Your task to perform on an android device: Open Chrome and go to settings Image 0: 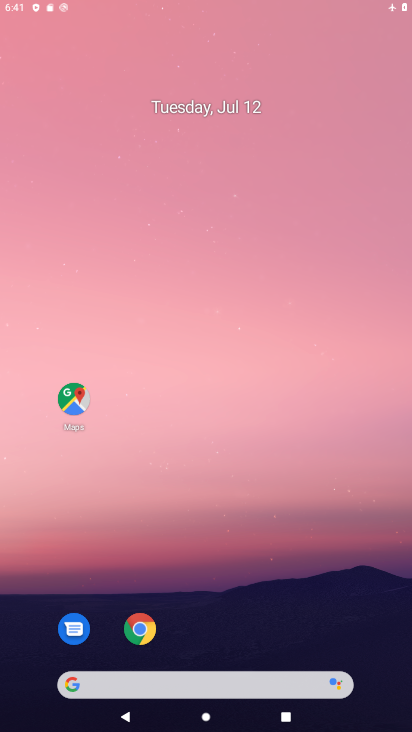
Step 0: click (214, 572)
Your task to perform on an android device: Open Chrome and go to settings Image 1: 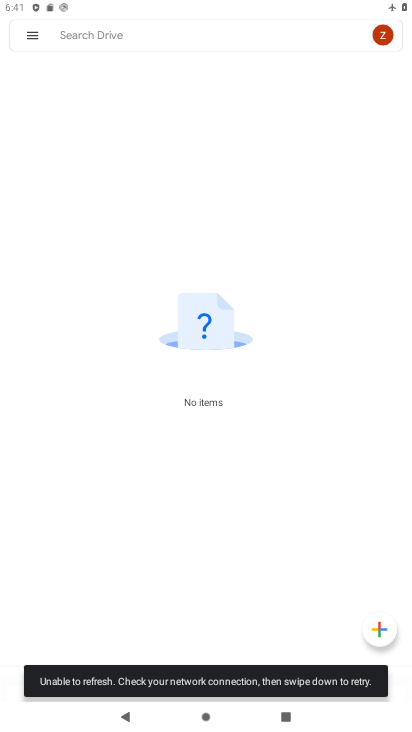
Step 1: click (9, 244)
Your task to perform on an android device: Open Chrome and go to settings Image 2: 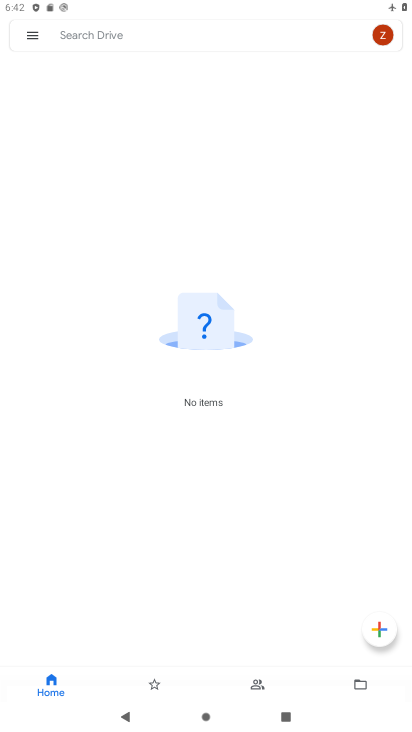
Step 2: press home button
Your task to perform on an android device: Open Chrome and go to settings Image 3: 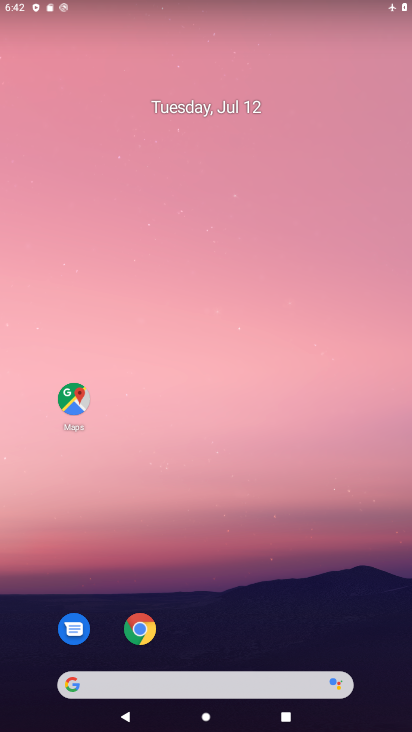
Step 3: click (144, 629)
Your task to perform on an android device: Open Chrome and go to settings Image 4: 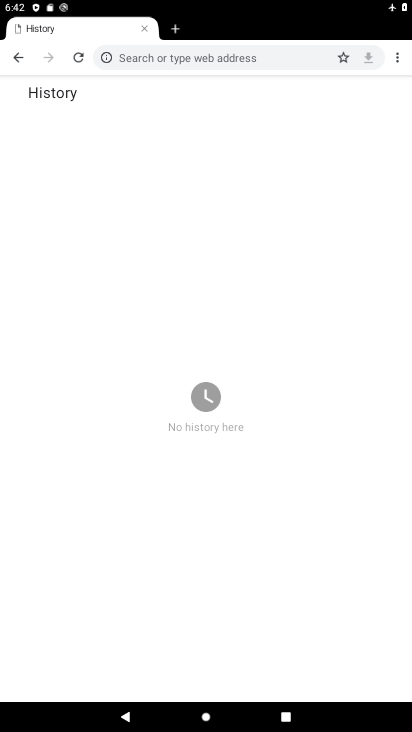
Step 4: click (401, 59)
Your task to perform on an android device: Open Chrome and go to settings Image 5: 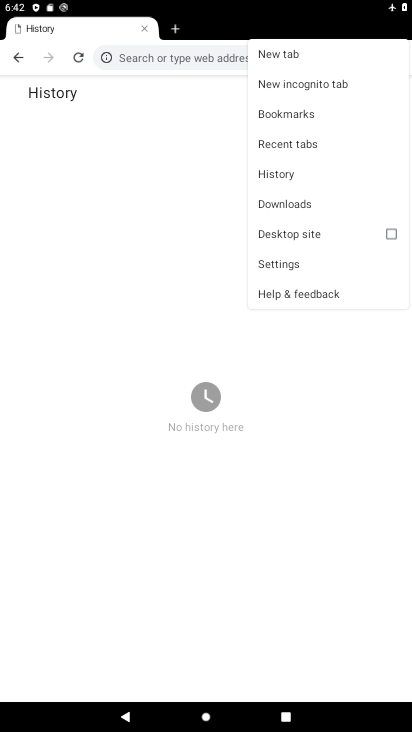
Step 5: click (278, 261)
Your task to perform on an android device: Open Chrome and go to settings Image 6: 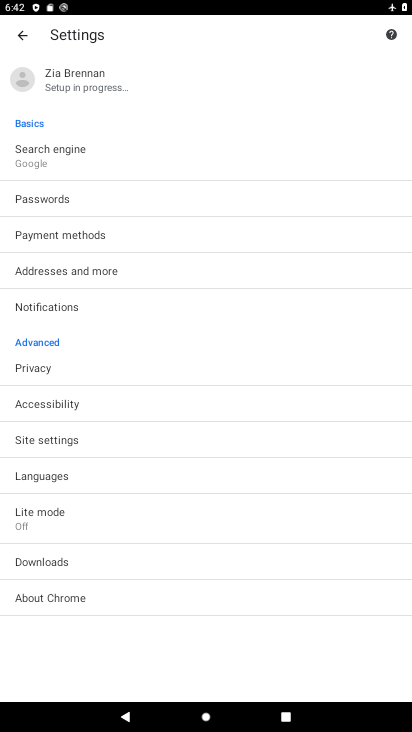
Step 6: task complete